Your task to perform on an android device: change alarm snooze length Image 0: 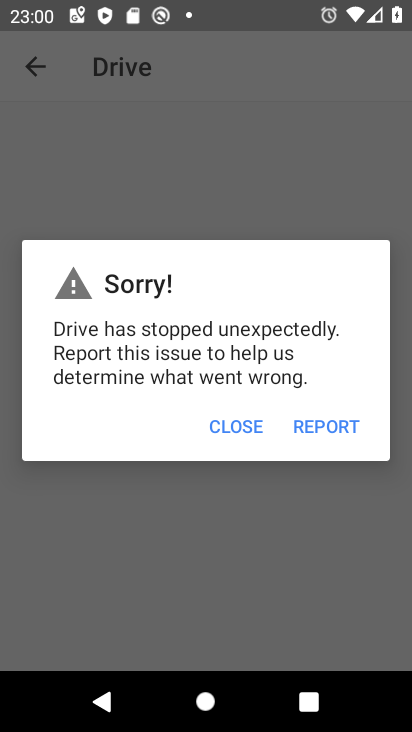
Step 0: press home button
Your task to perform on an android device: change alarm snooze length Image 1: 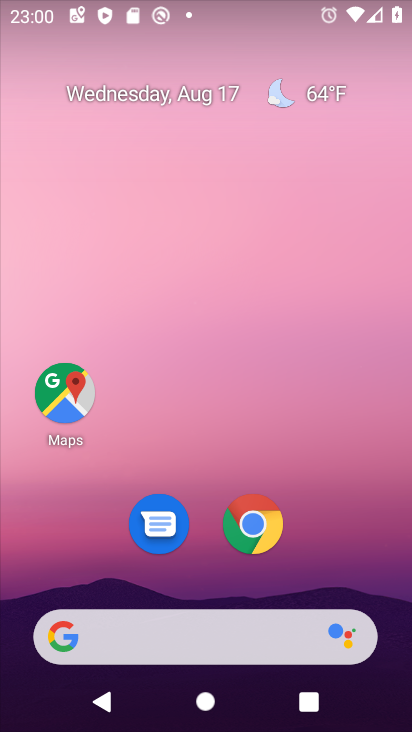
Step 1: drag from (299, 497) to (327, 29)
Your task to perform on an android device: change alarm snooze length Image 2: 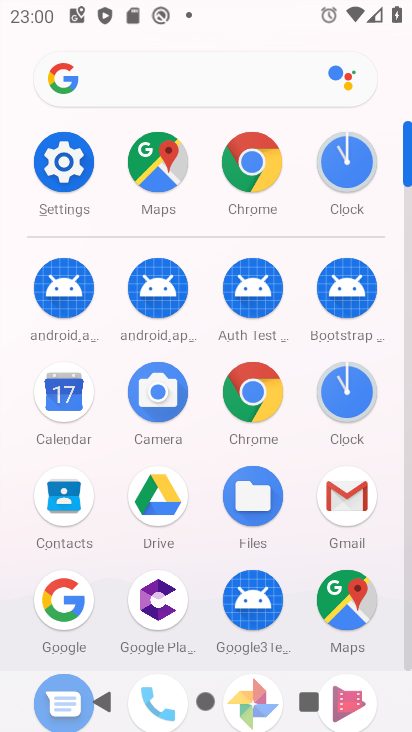
Step 2: click (356, 163)
Your task to perform on an android device: change alarm snooze length Image 3: 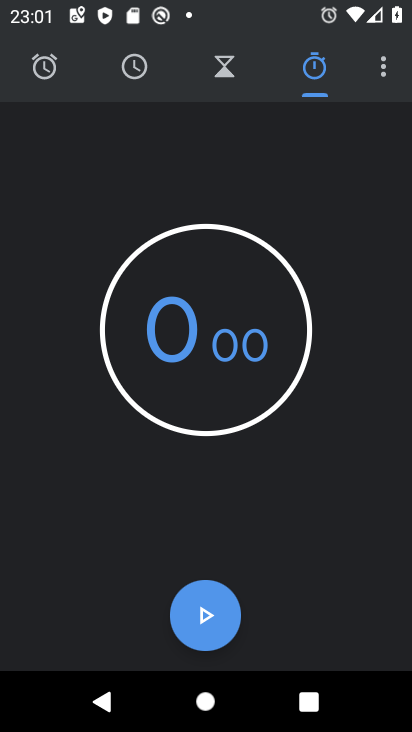
Step 3: click (387, 72)
Your task to perform on an android device: change alarm snooze length Image 4: 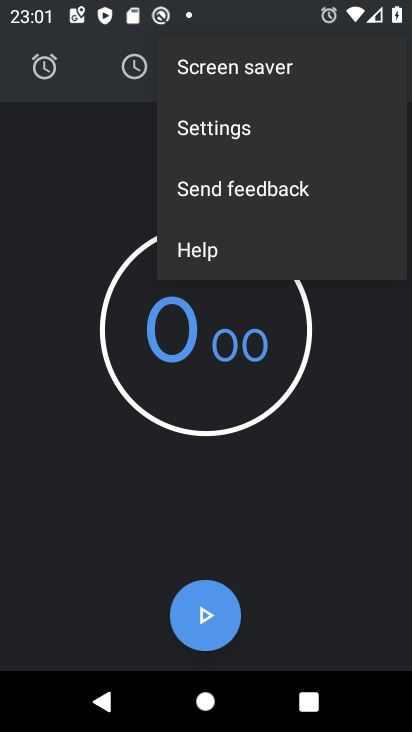
Step 4: click (274, 133)
Your task to perform on an android device: change alarm snooze length Image 5: 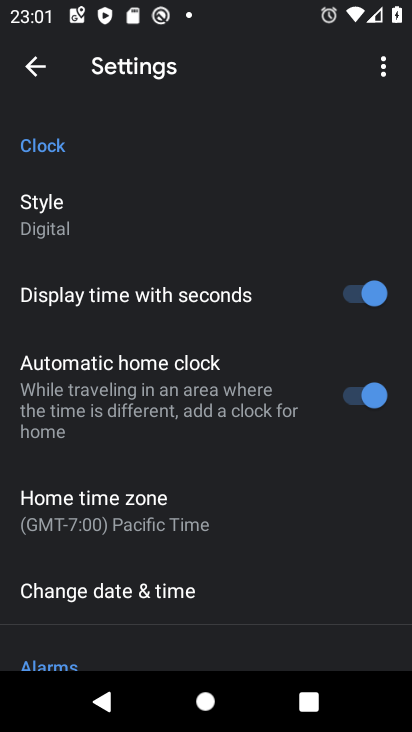
Step 5: drag from (177, 459) to (223, 59)
Your task to perform on an android device: change alarm snooze length Image 6: 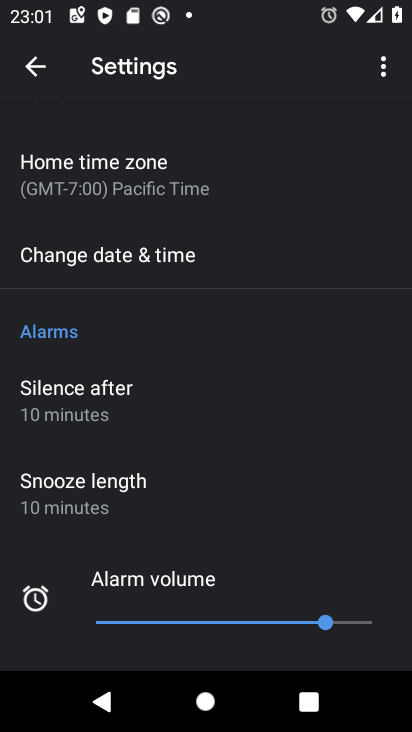
Step 6: click (110, 494)
Your task to perform on an android device: change alarm snooze length Image 7: 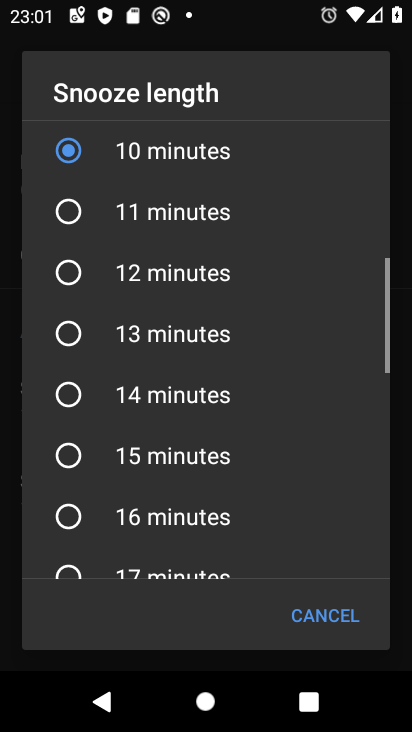
Step 7: click (75, 219)
Your task to perform on an android device: change alarm snooze length Image 8: 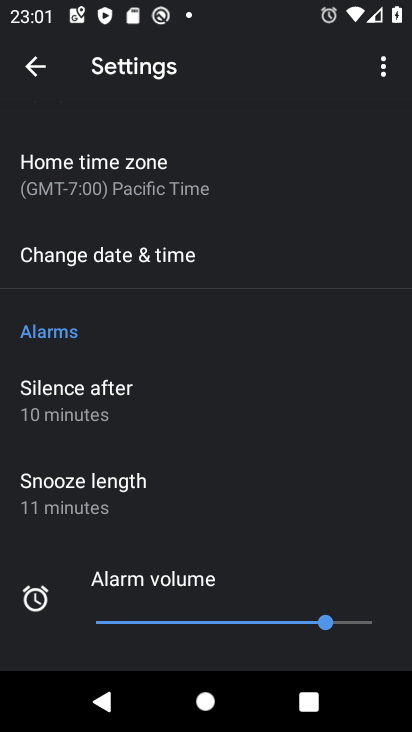
Step 8: task complete